Your task to perform on an android device: Go to eBay Image 0: 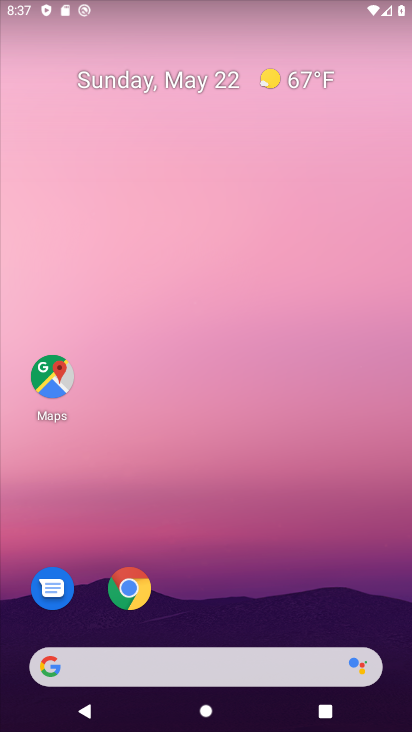
Step 0: click (120, 592)
Your task to perform on an android device: Go to eBay Image 1: 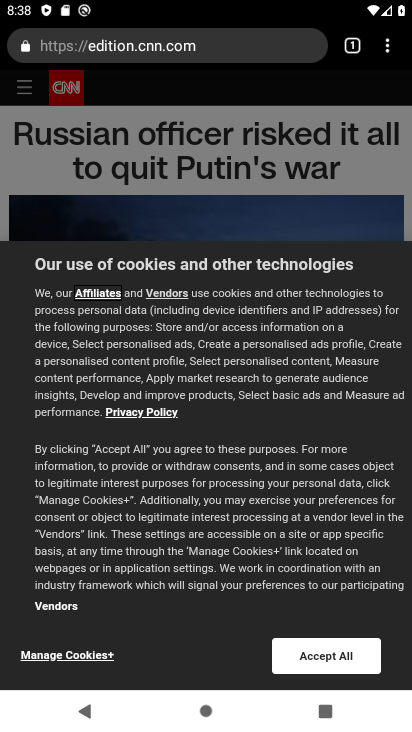
Step 1: click (356, 42)
Your task to perform on an android device: Go to eBay Image 2: 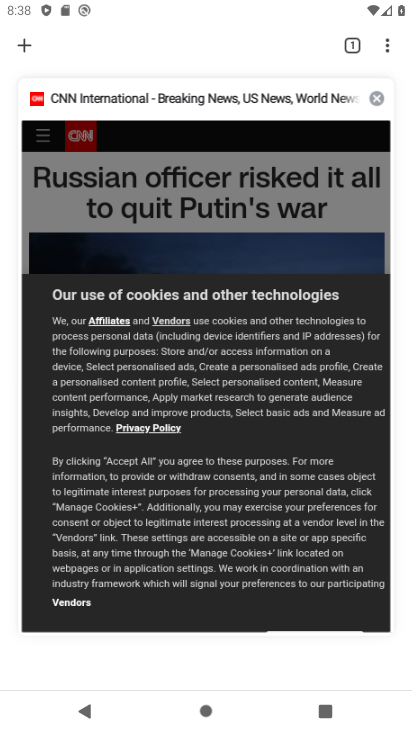
Step 2: click (28, 46)
Your task to perform on an android device: Go to eBay Image 3: 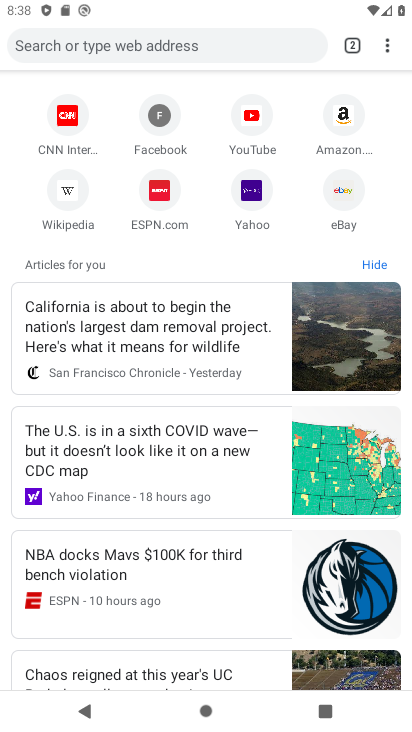
Step 3: click (164, 38)
Your task to perform on an android device: Go to eBay Image 4: 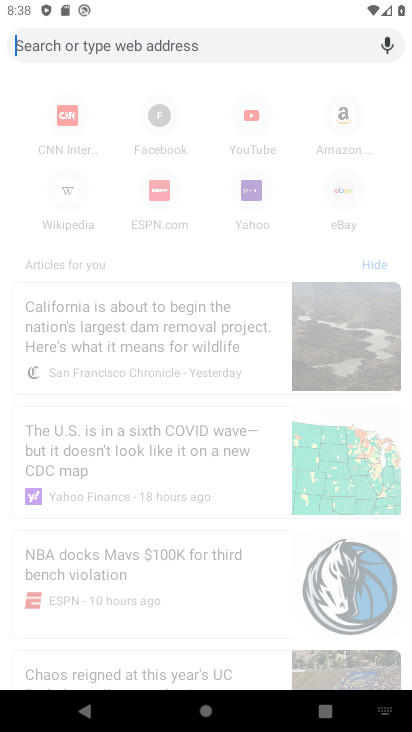
Step 4: click (329, 186)
Your task to perform on an android device: Go to eBay Image 5: 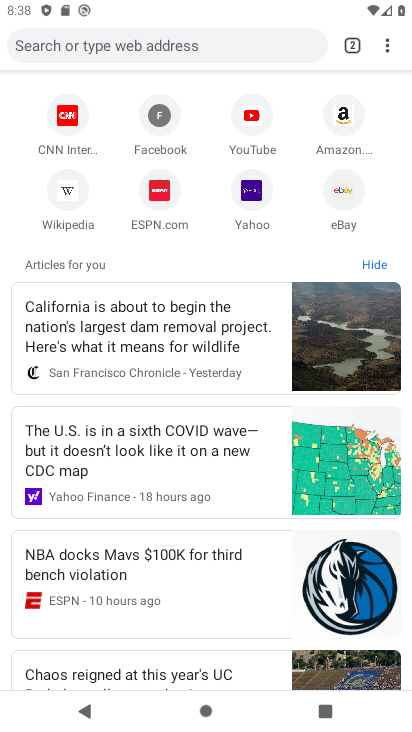
Step 5: click (339, 192)
Your task to perform on an android device: Go to eBay Image 6: 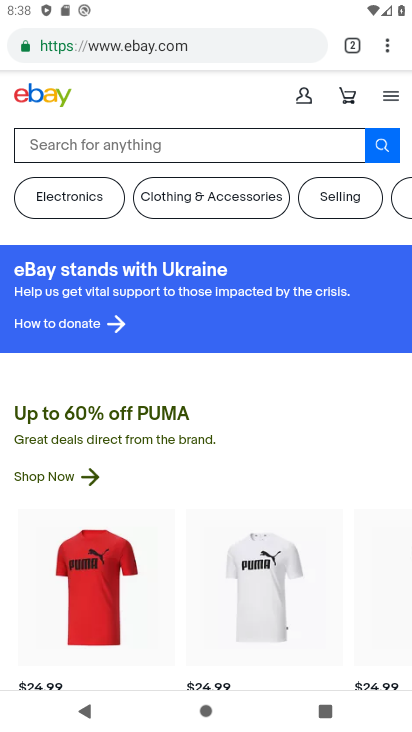
Step 6: task complete